Your task to perform on an android device: turn pop-ups off in chrome Image 0: 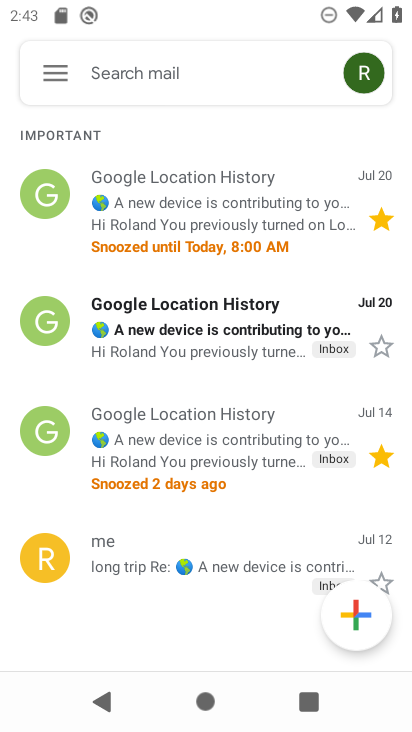
Step 0: press home button
Your task to perform on an android device: turn pop-ups off in chrome Image 1: 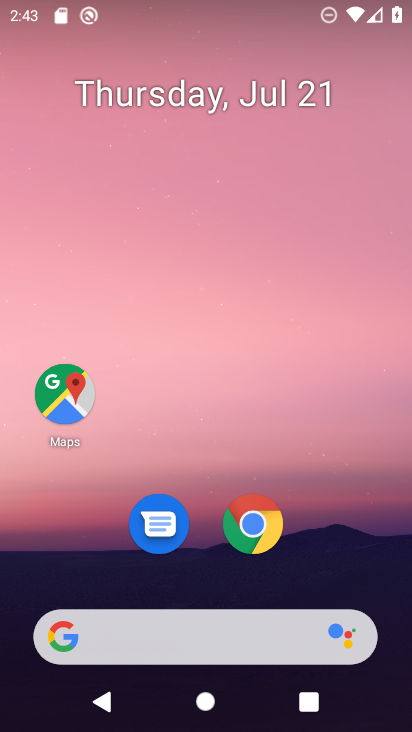
Step 1: click (246, 537)
Your task to perform on an android device: turn pop-ups off in chrome Image 2: 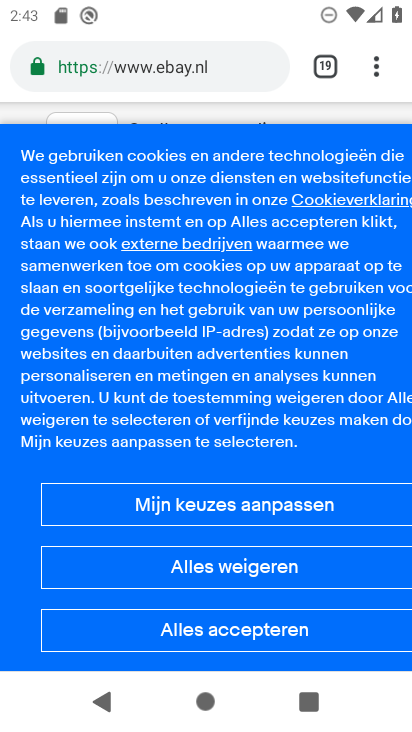
Step 2: drag from (376, 62) to (268, 524)
Your task to perform on an android device: turn pop-ups off in chrome Image 3: 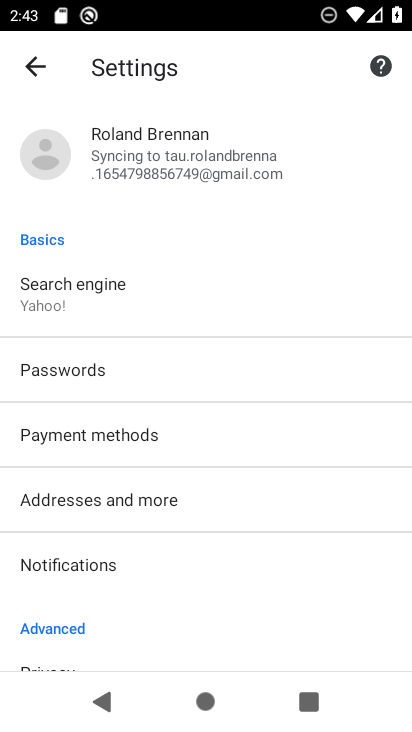
Step 3: drag from (172, 615) to (337, 183)
Your task to perform on an android device: turn pop-ups off in chrome Image 4: 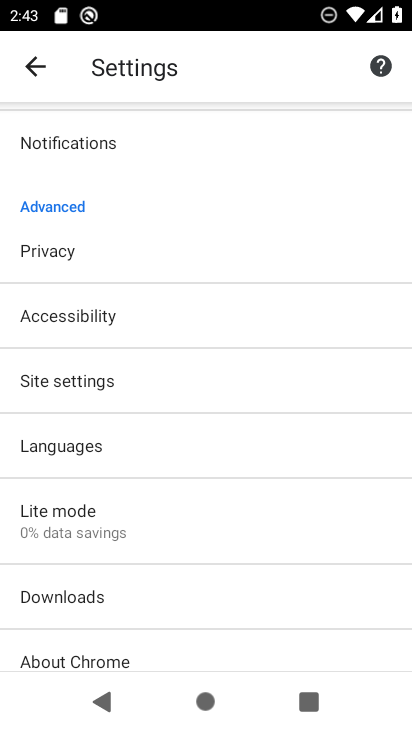
Step 4: click (90, 391)
Your task to perform on an android device: turn pop-ups off in chrome Image 5: 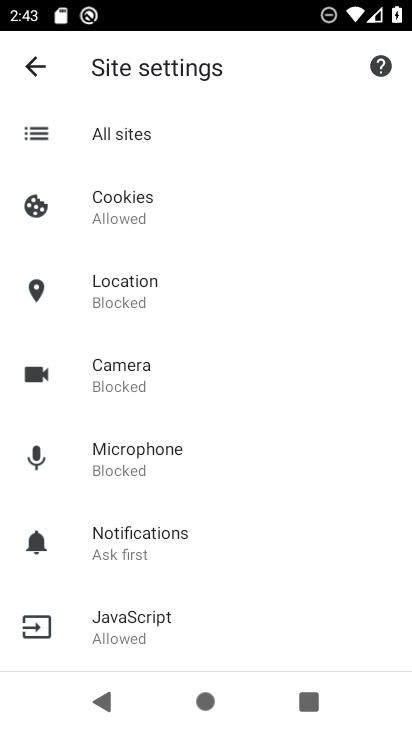
Step 5: drag from (281, 533) to (320, 207)
Your task to perform on an android device: turn pop-ups off in chrome Image 6: 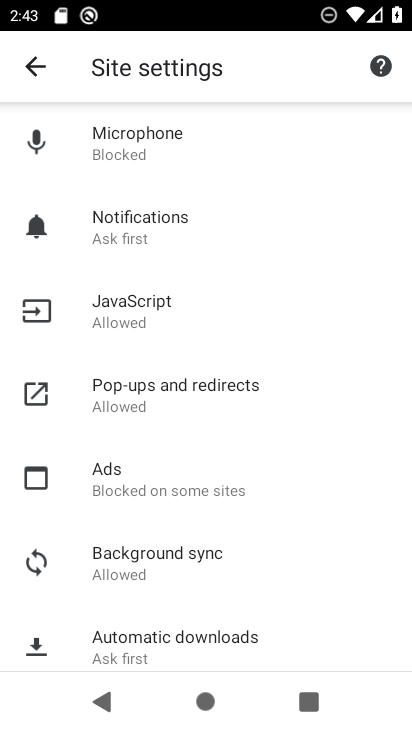
Step 6: click (153, 373)
Your task to perform on an android device: turn pop-ups off in chrome Image 7: 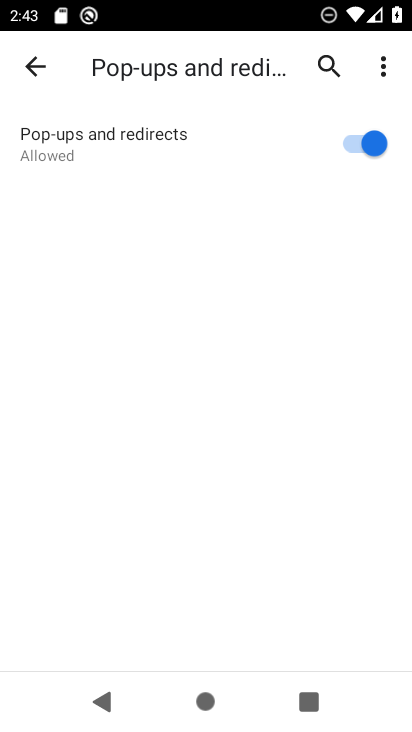
Step 7: click (356, 143)
Your task to perform on an android device: turn pop-ups off in chrome Image 8: 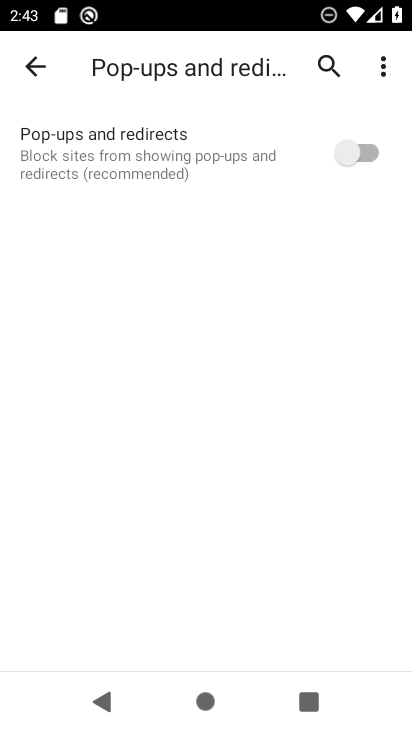
Step 8: task complete